Your task to perform on an android device: change the upload size in google photos Image 0: 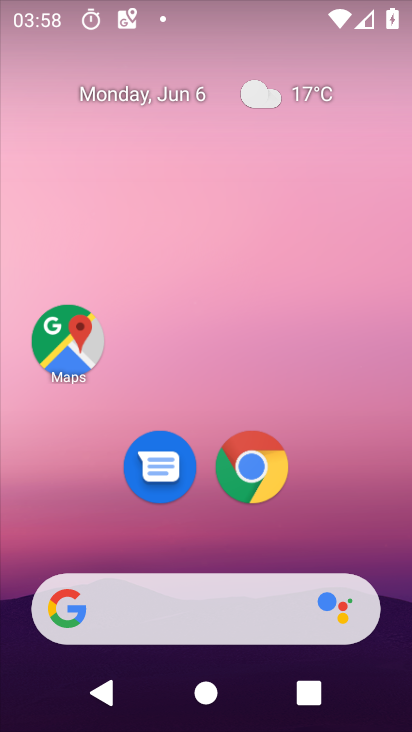
Step 0: press home button
Your task to perform on an android device: change the upload size in google photos Image 1: 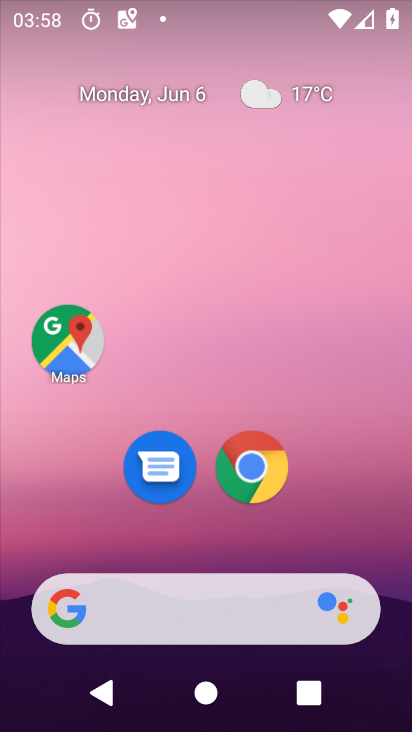
Step 1: drag from (210, 540) to (222, 81)
Your task to perform on an android device: change the upload size in google photos Image 2: 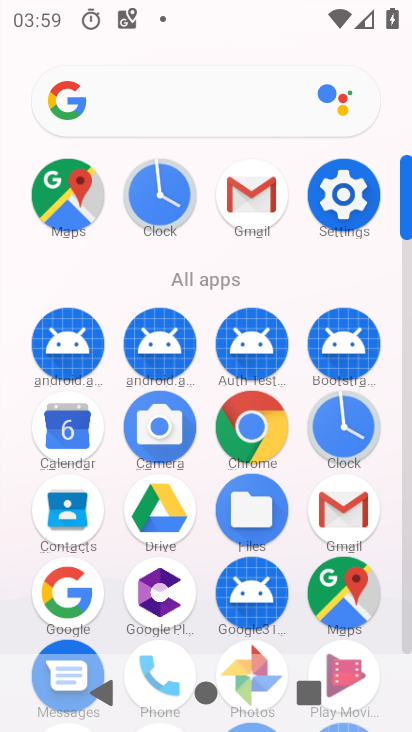
Step 2: drag from (200, 564) to (242, 271)
Your task to perform on an android device: change the upload size in google photos Image 3: 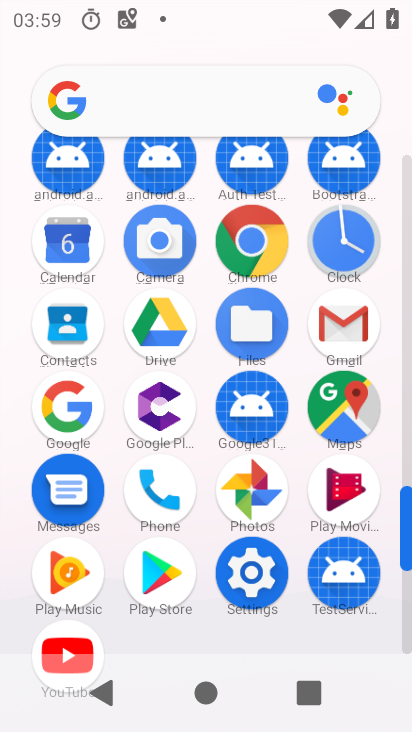
Step 3: click (248, 482)
Your task to perform on an android device: change the upload size in google photos Image 4: 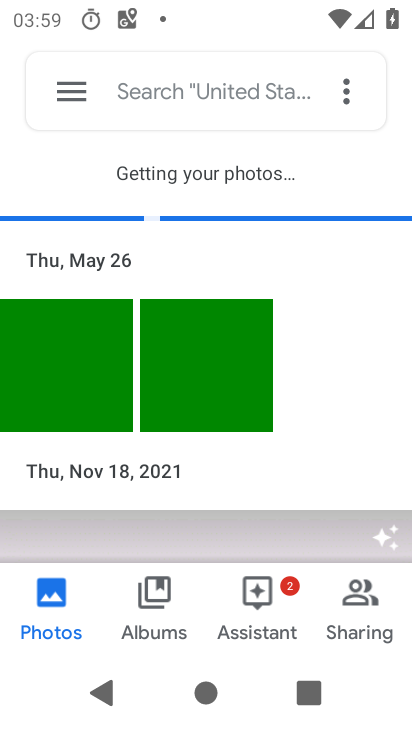
Step 4: click (71, 84)
Your task to perform on an android device: change the upload size in google photos Image 5: 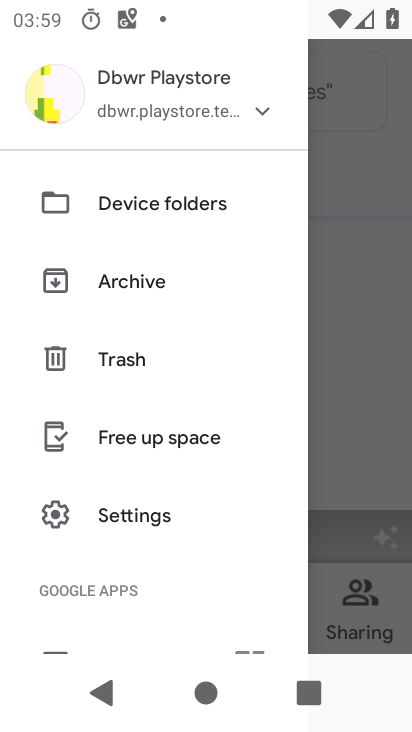
Step 5: click (184, 507)
Your task to perform on an android device: change the upload size in google photos Image 6: 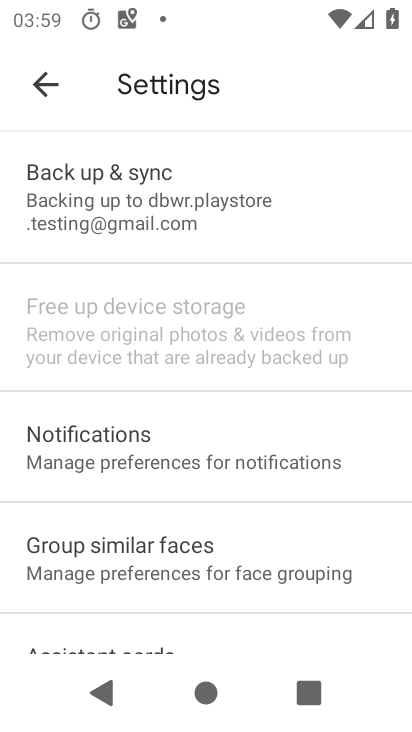
Step 6: click (212, 192)
Your task to perform on an android device: change the upload size in google photos Image 7: 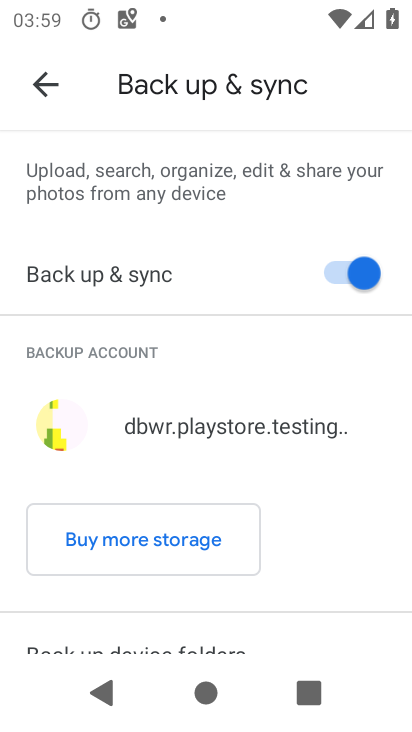
Step 7: drag from (278, 585) to (303, 158)
Your task to perform on an android device: change the upload size in google photos Image 8: 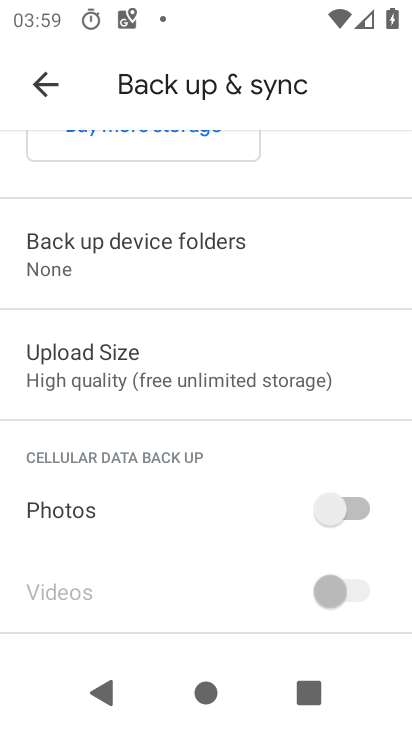
Step 8: click (149, 356)
Your task to perform on an android device: change the upload size in google photos Image 9: 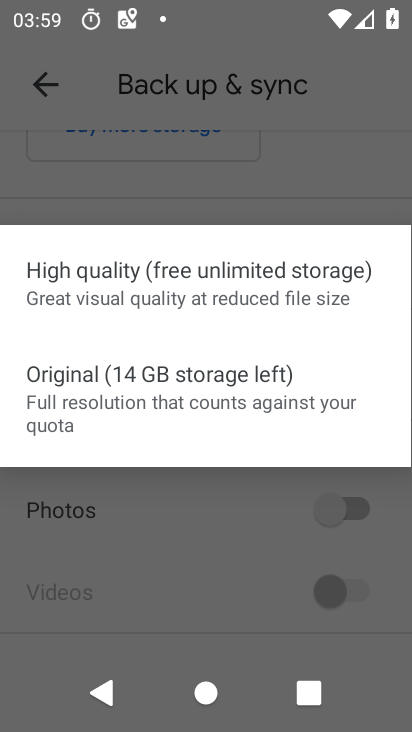
Step 9: click (102, 415)
Your task to perform on an android device: change the upload size in google photos Image 10: 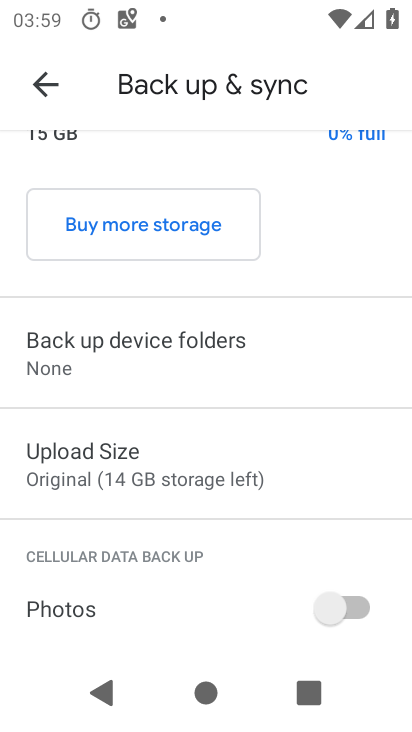
Step 10: task complete